Your task to perform on an android device: turn vacation reply on in the gmail app Image 0: 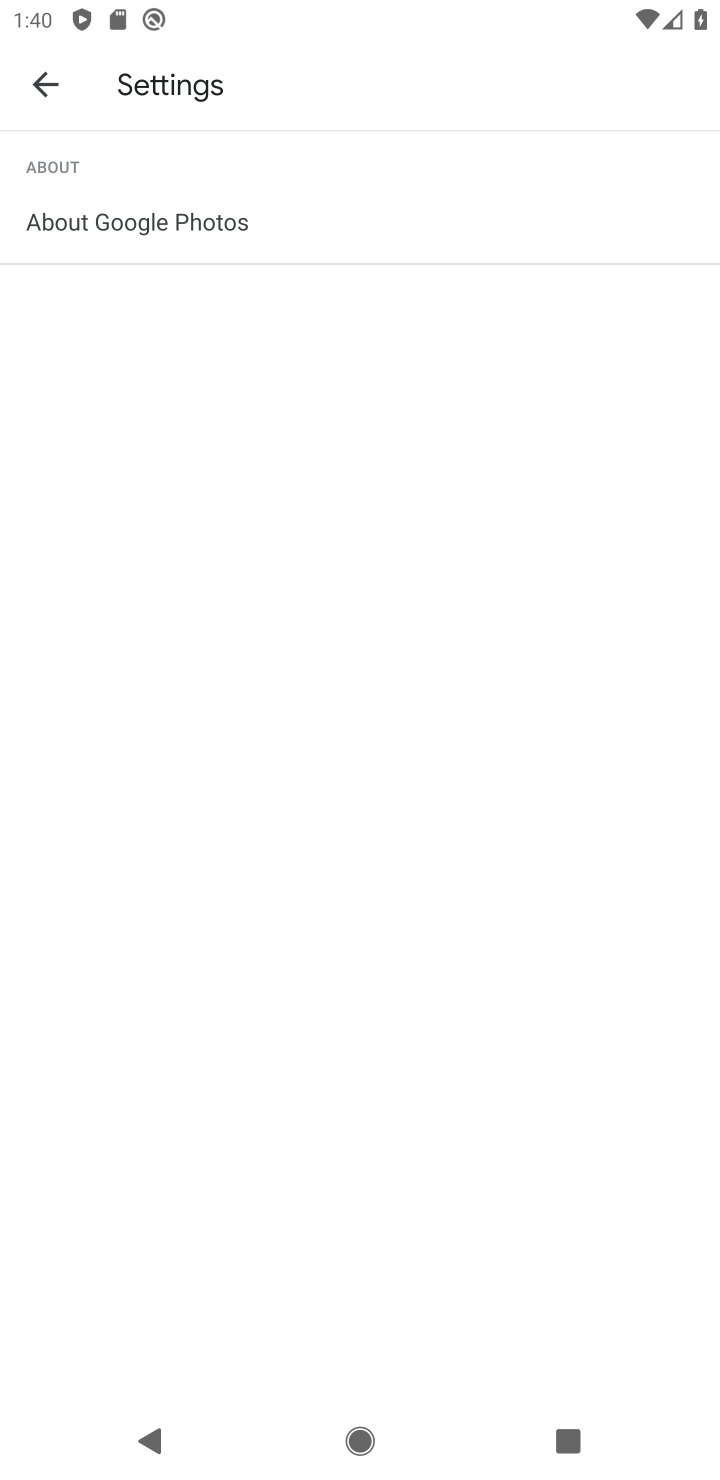
Step 0: press home button
Your task to perform on an android device: turn vacation reply on in the gmail app Image 1: 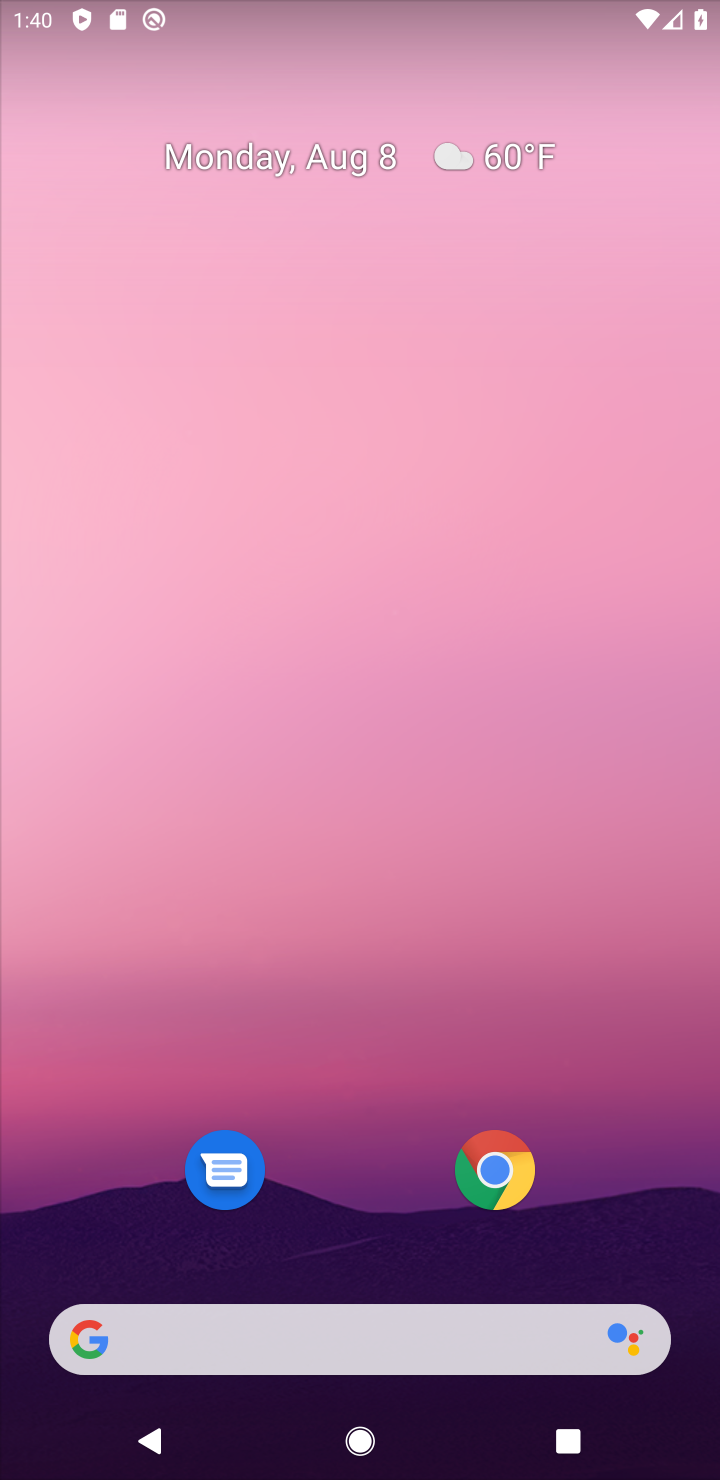
Step 1: drag from (127, 1283) to (353, 689)
Your task to perform on an android device: turn vacation reply on in the gmail app Image 2: 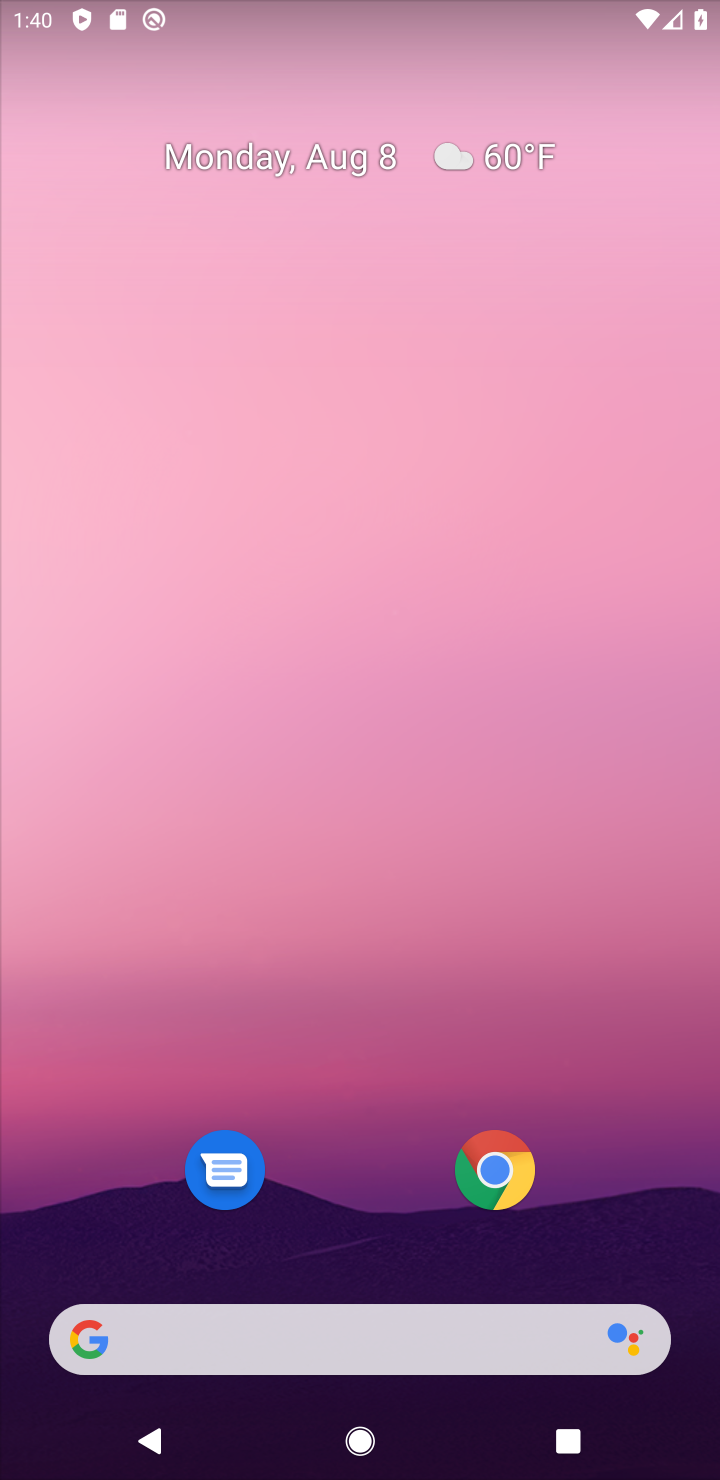
Step 2: drag from (54, 1383) to (395, 437)
Your task to perform on an android device: turn vacation reply on in the gmail app Image 3: 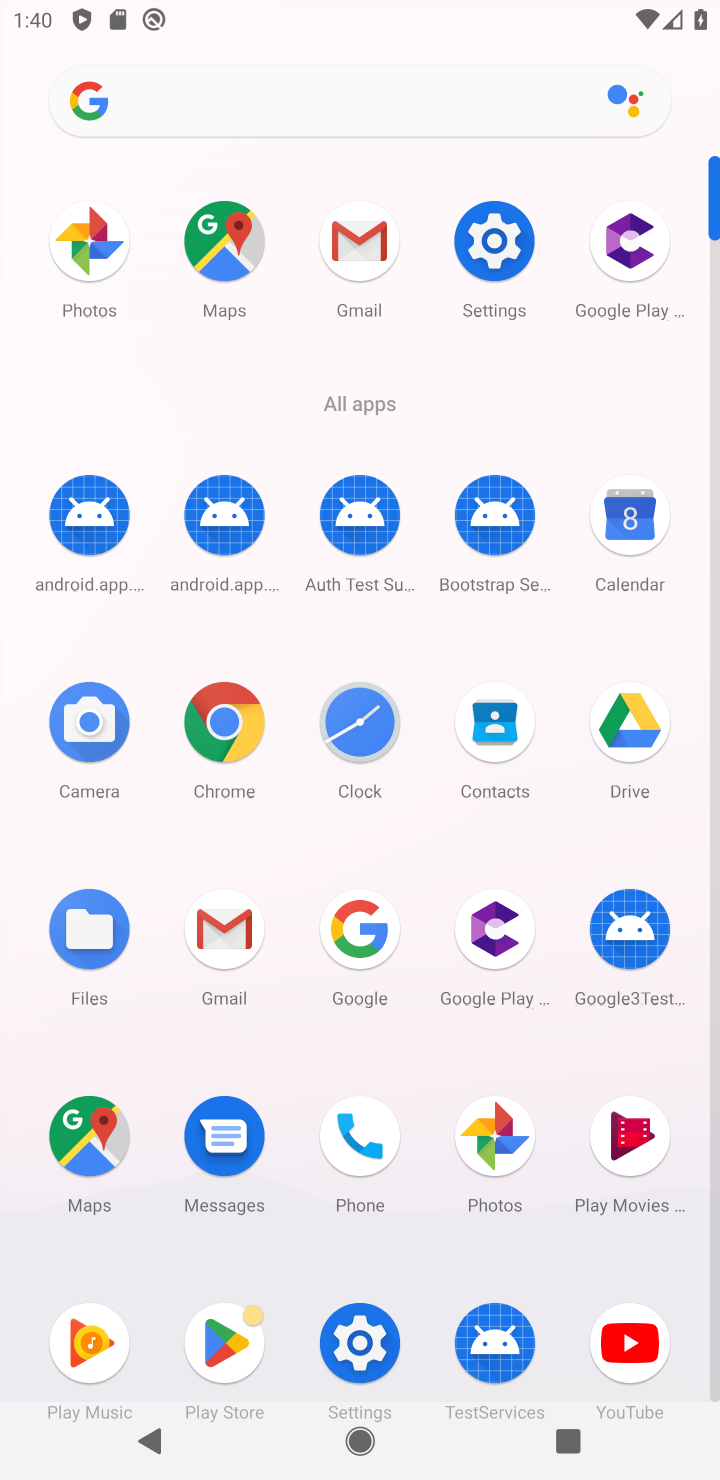
Step 3: click (228, 941)
Your task to perform on an android device: turn vacation reply on in the gmail app Image 4: 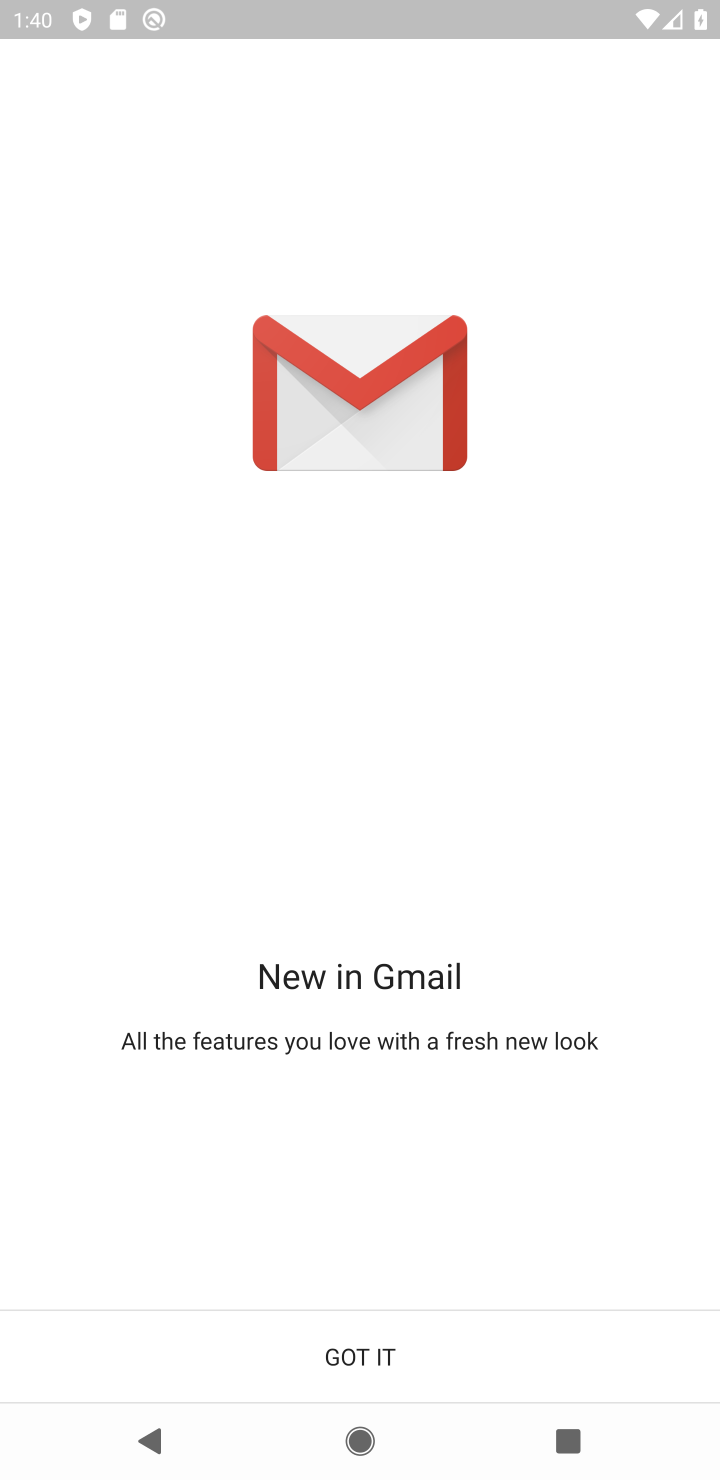
Step 4: click (377, 1351)
Your task to perform on an android device: turn vacation reply on in the gmail app Image 5: 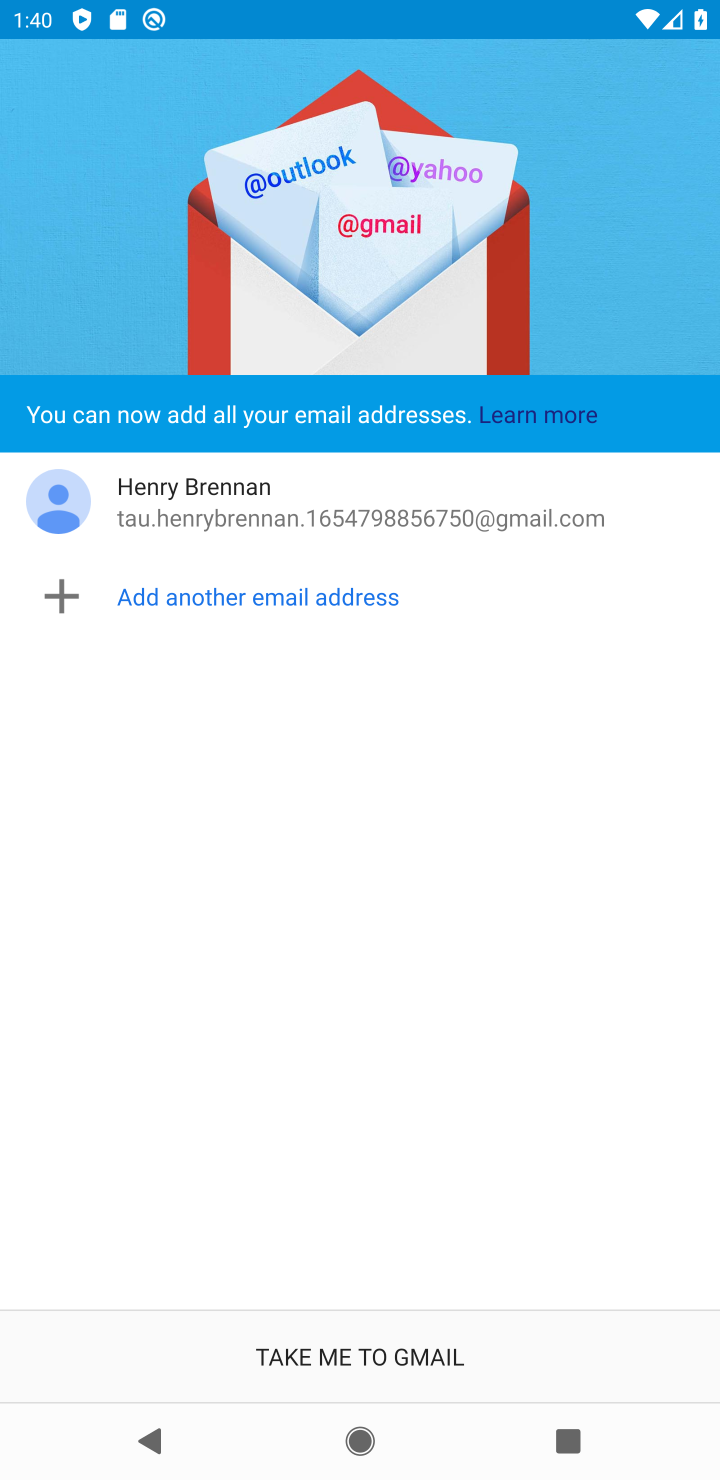
Step 5: click (377, 1351)
Your task to perform on an android device: turn vacation reply on in the gmail app Image 6: 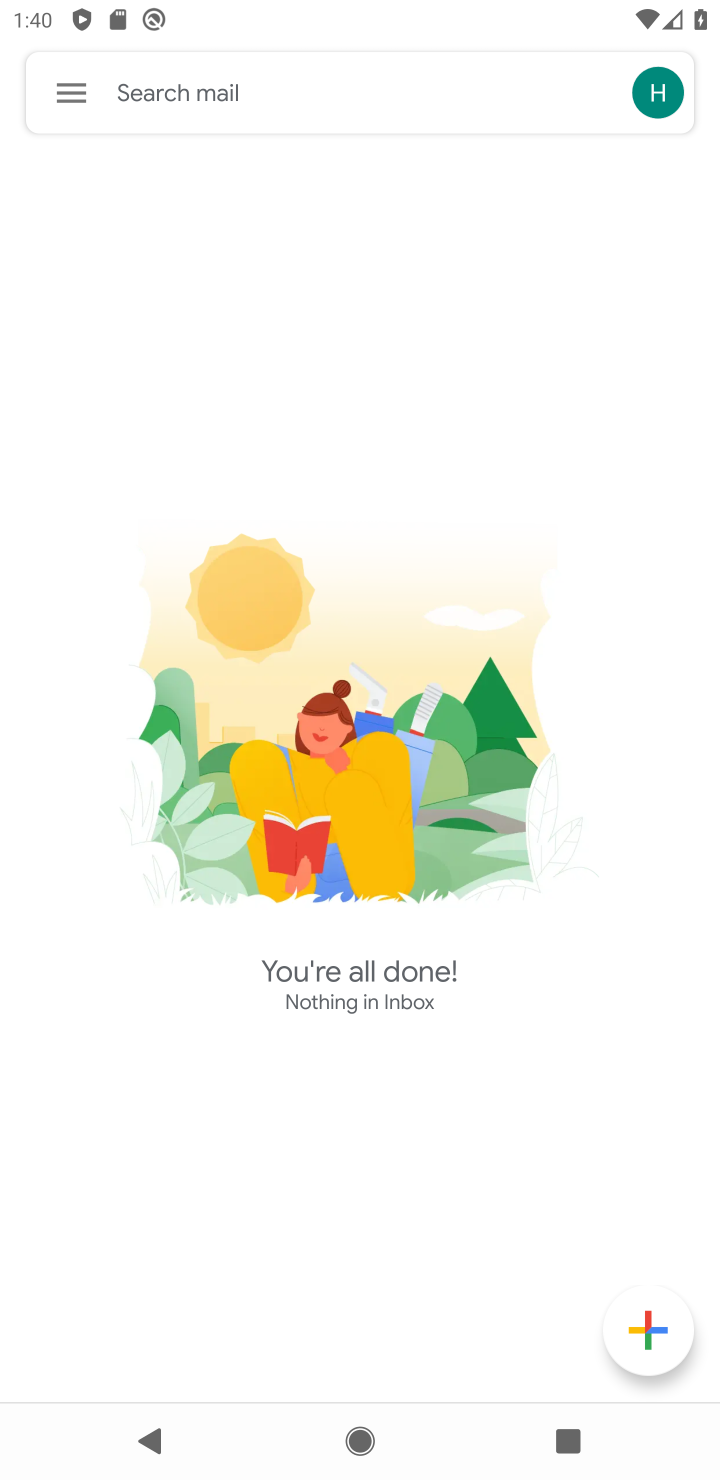
Step 6: click (76, 88)
Your task to perform on an android device: turn vacation reply on in the gmail app Image 7: 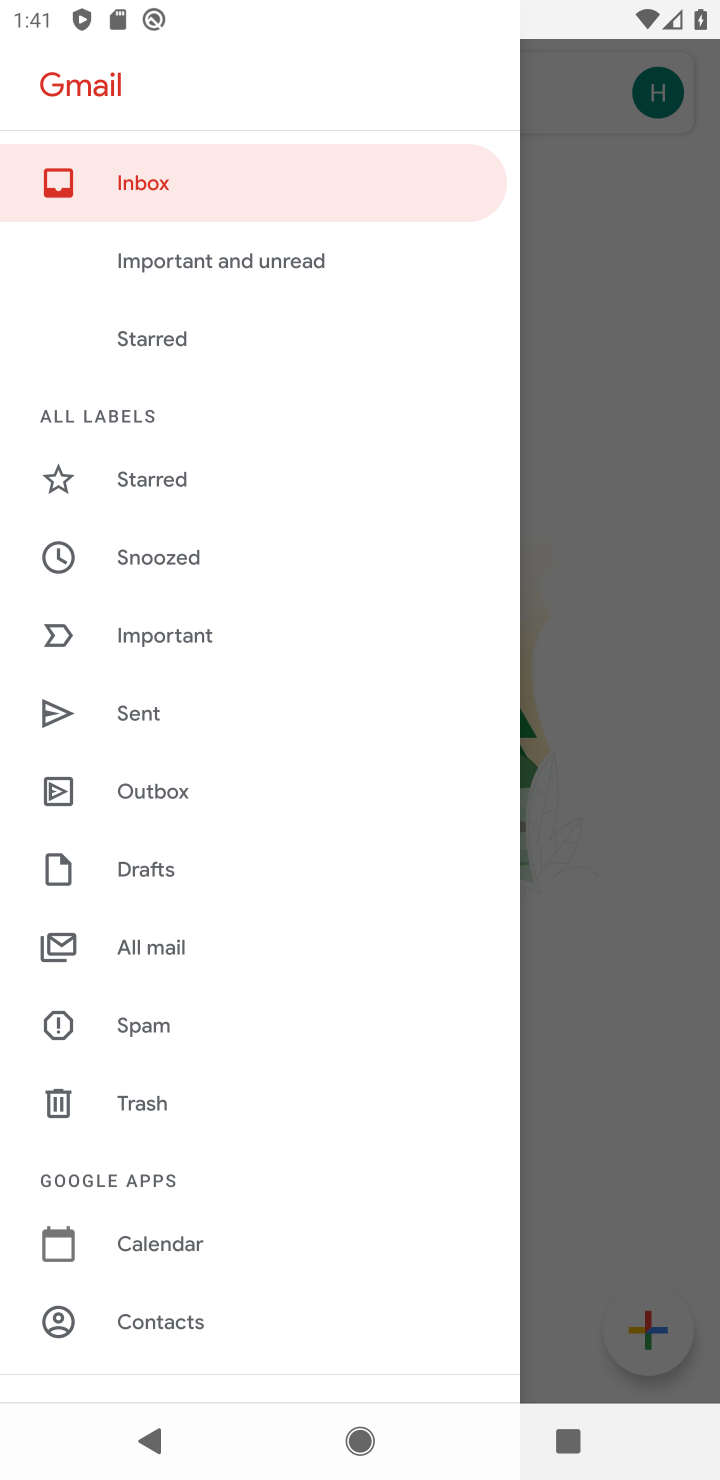
Step 7: click (257, 382)
Your task to perform on an android device: turn vacation reply on in the gmail app Image 8: 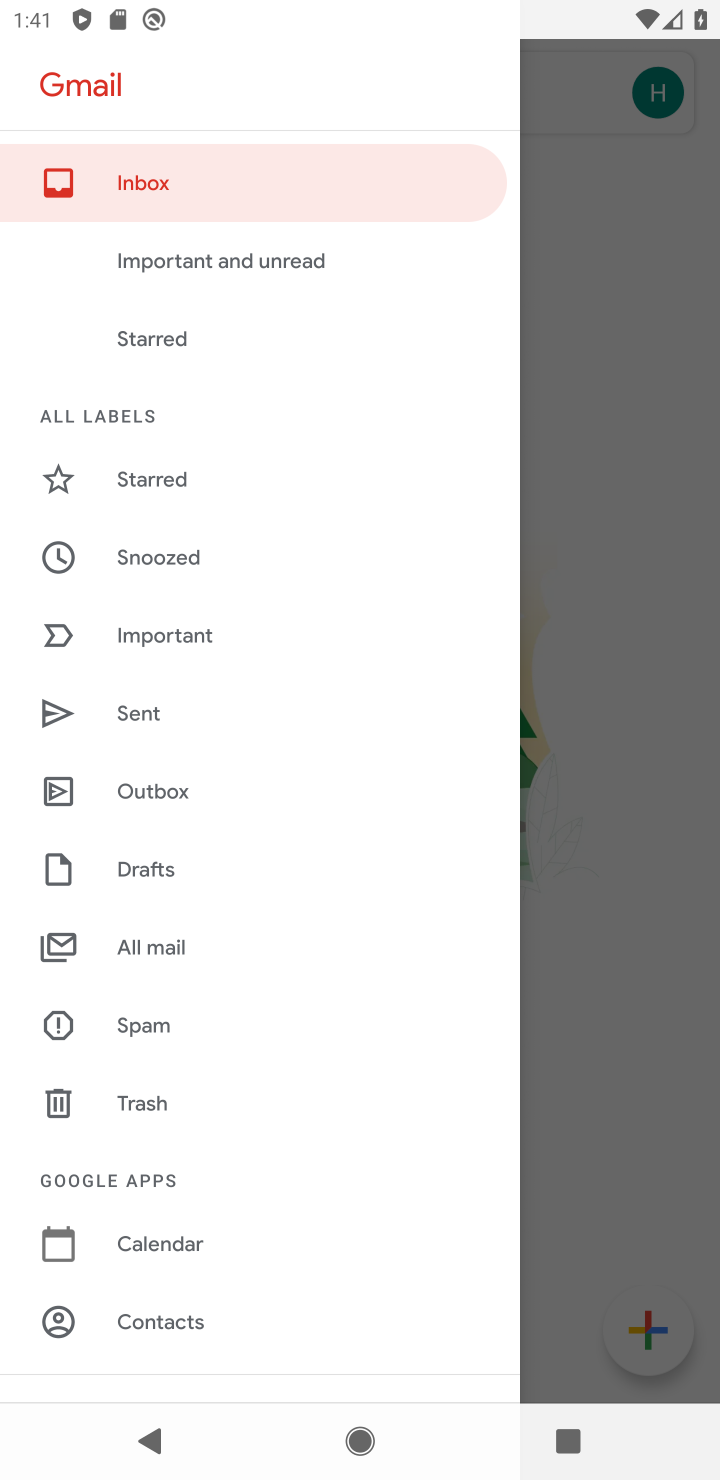
Step 8: drag from (477, 1351) to (551, 836)
Your task to perform on an android device: turn vacation reply on in the gmail app Image 9: 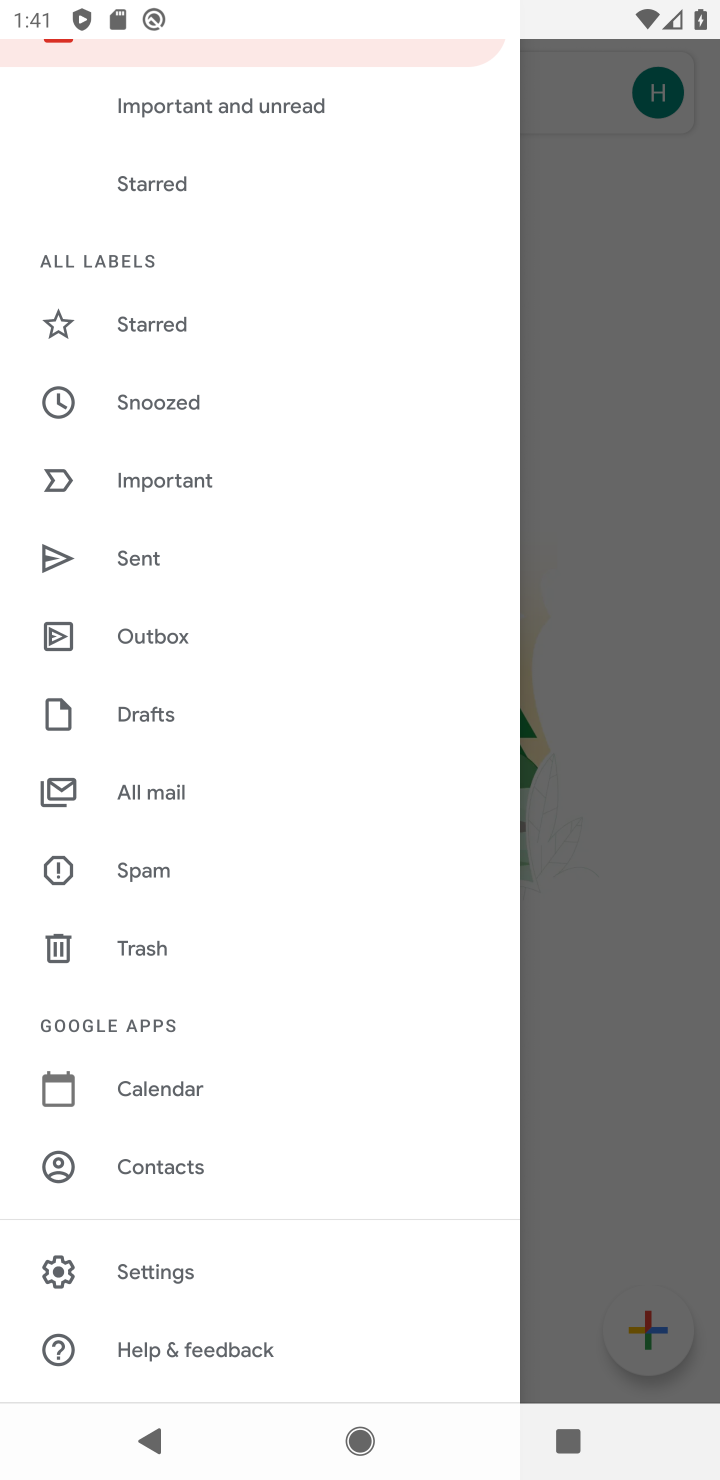
Step 9: click (150, 1250)
Your task to perform on an android device: turn vacation reply on in the gmail app Image 10: 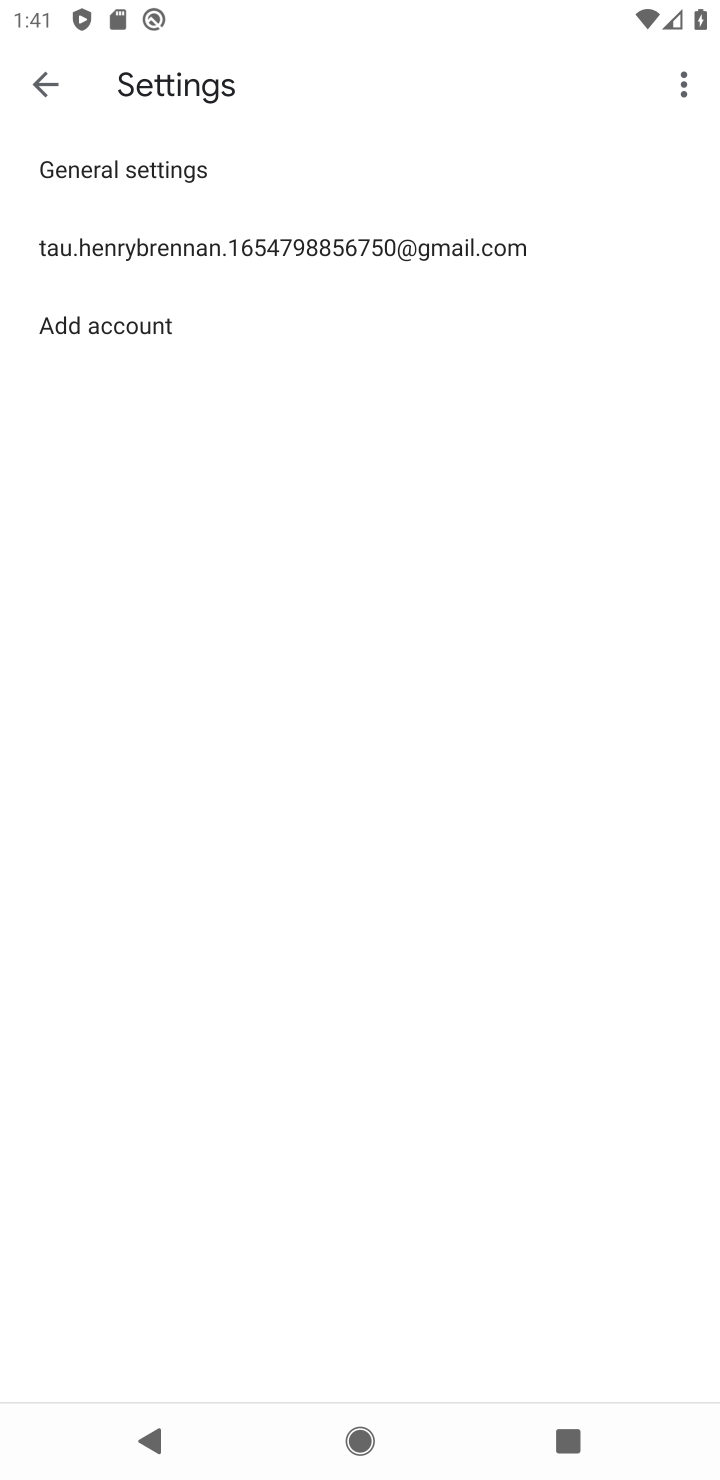
Step 10: click (241, 253)
Your task to perform on an android device: turn vacation reply on in the gmail app Image 11: 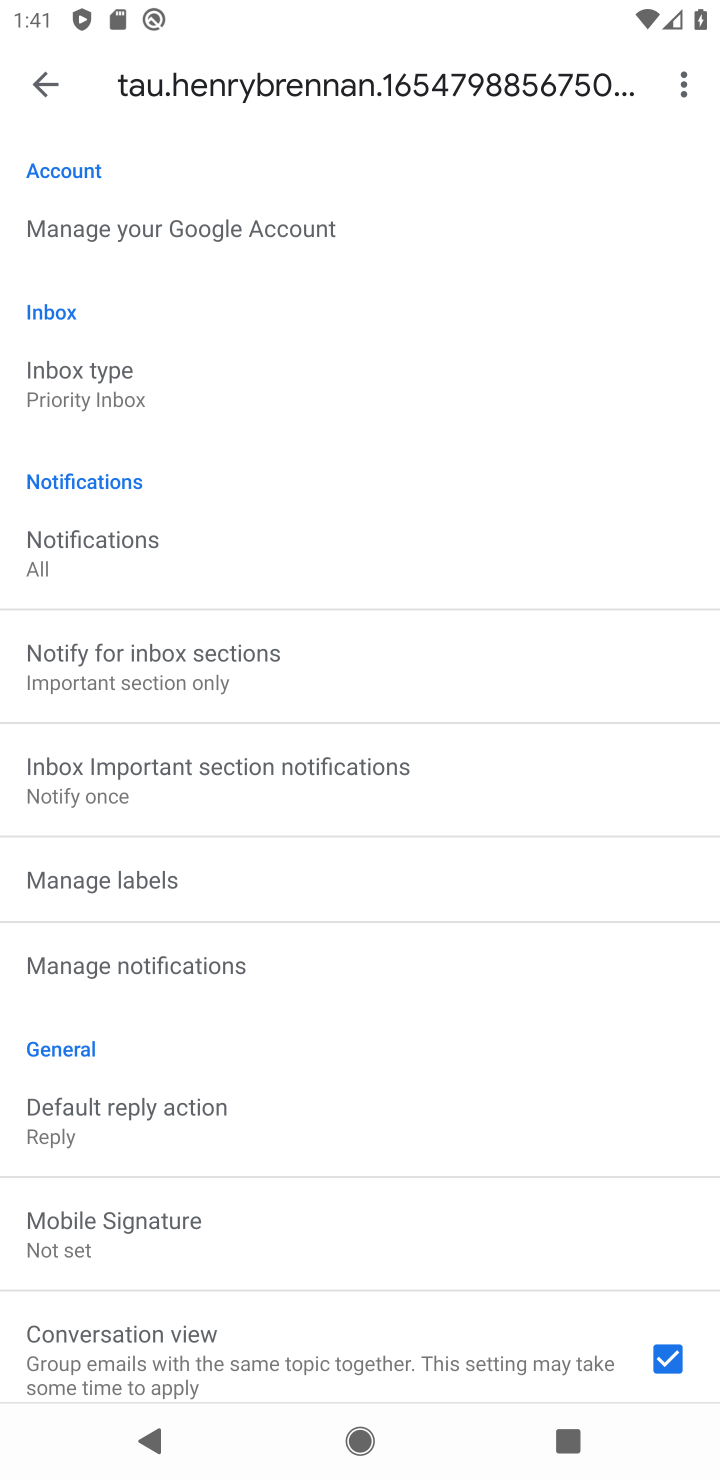
Step 11: drag from (556, 1227) to (588, 671)
Your task to perform on an android device: turn vacation reply on in the gmail app Image 12: 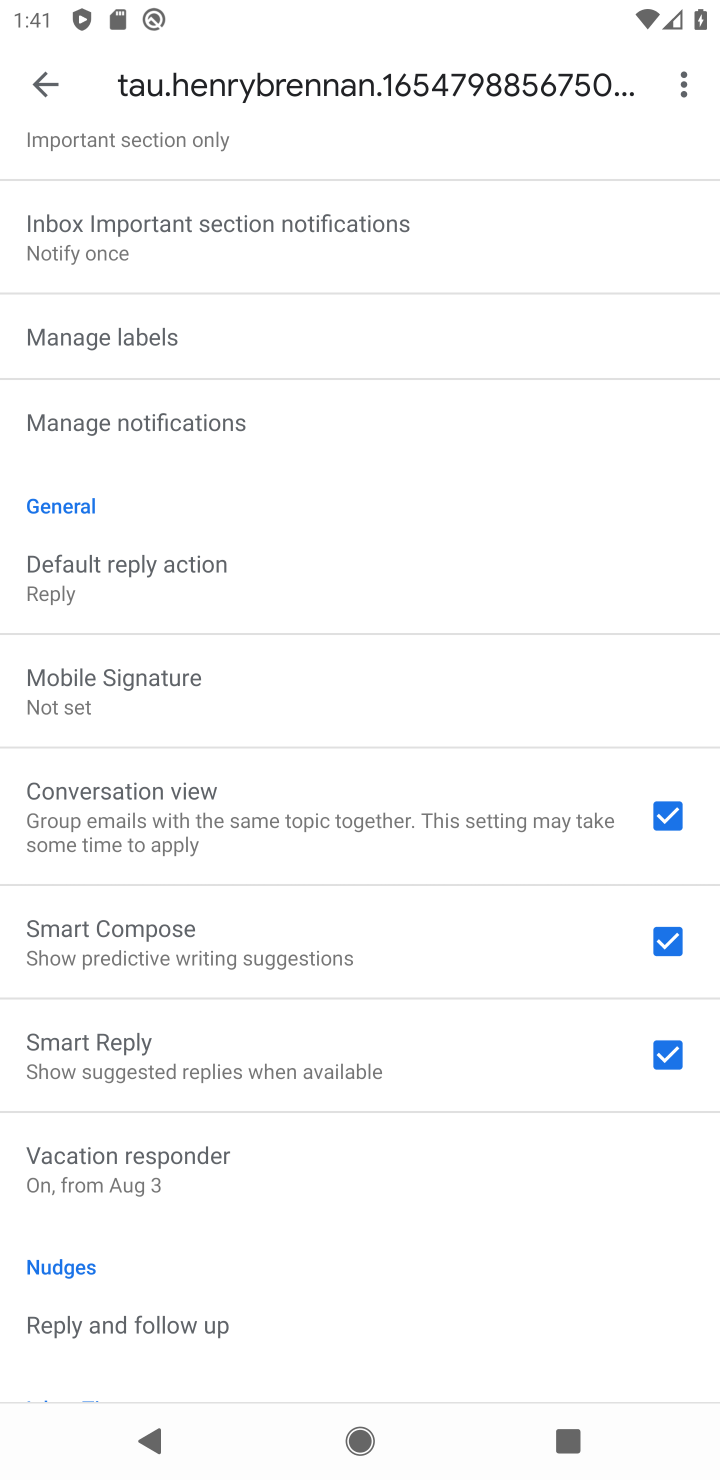
Step 12: drag from (512, 1280) to (513, 874)
Your task to perform on an android device: turn vacation reply on in the gmail app Image 13: 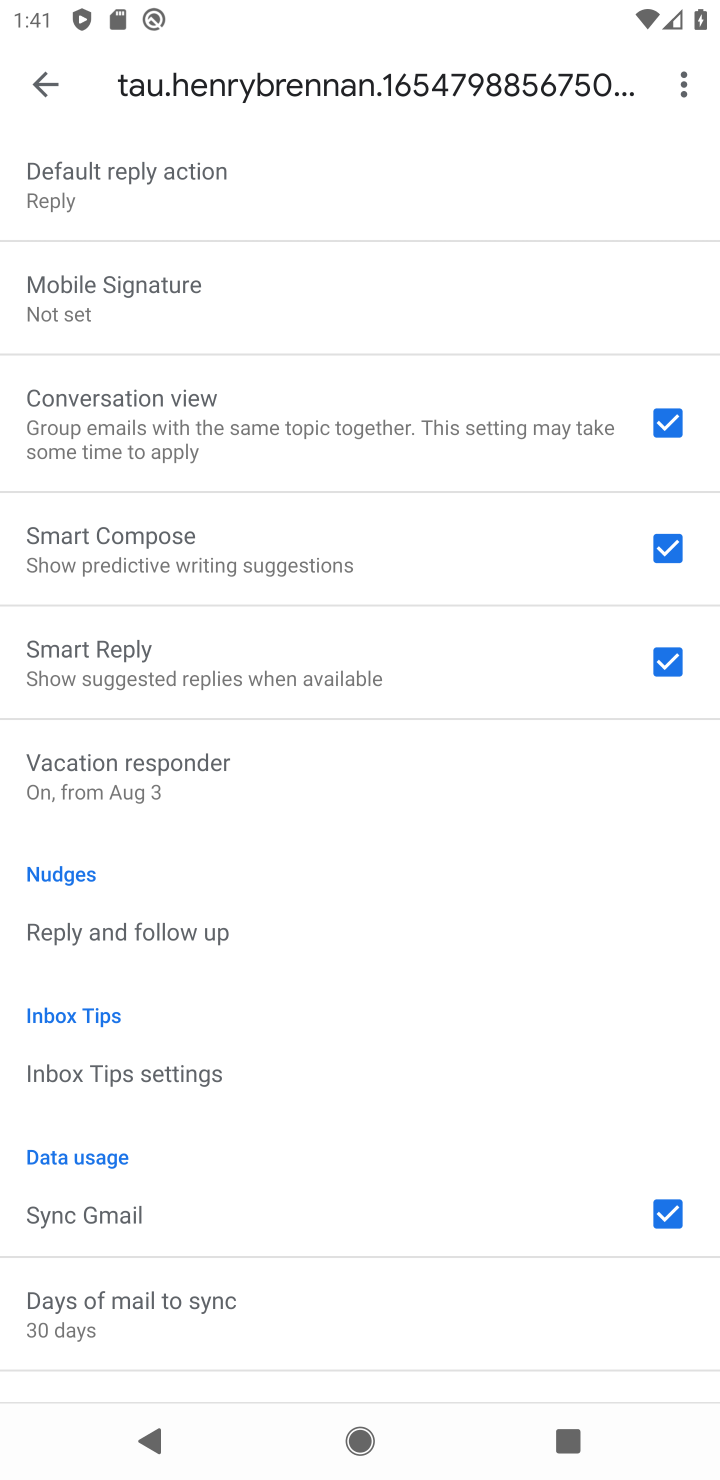
Step 13: drag from (532, 1432) to (484, 907)
Your task to perform on an android device: turn vacation reply on in the gmail app Image 14: 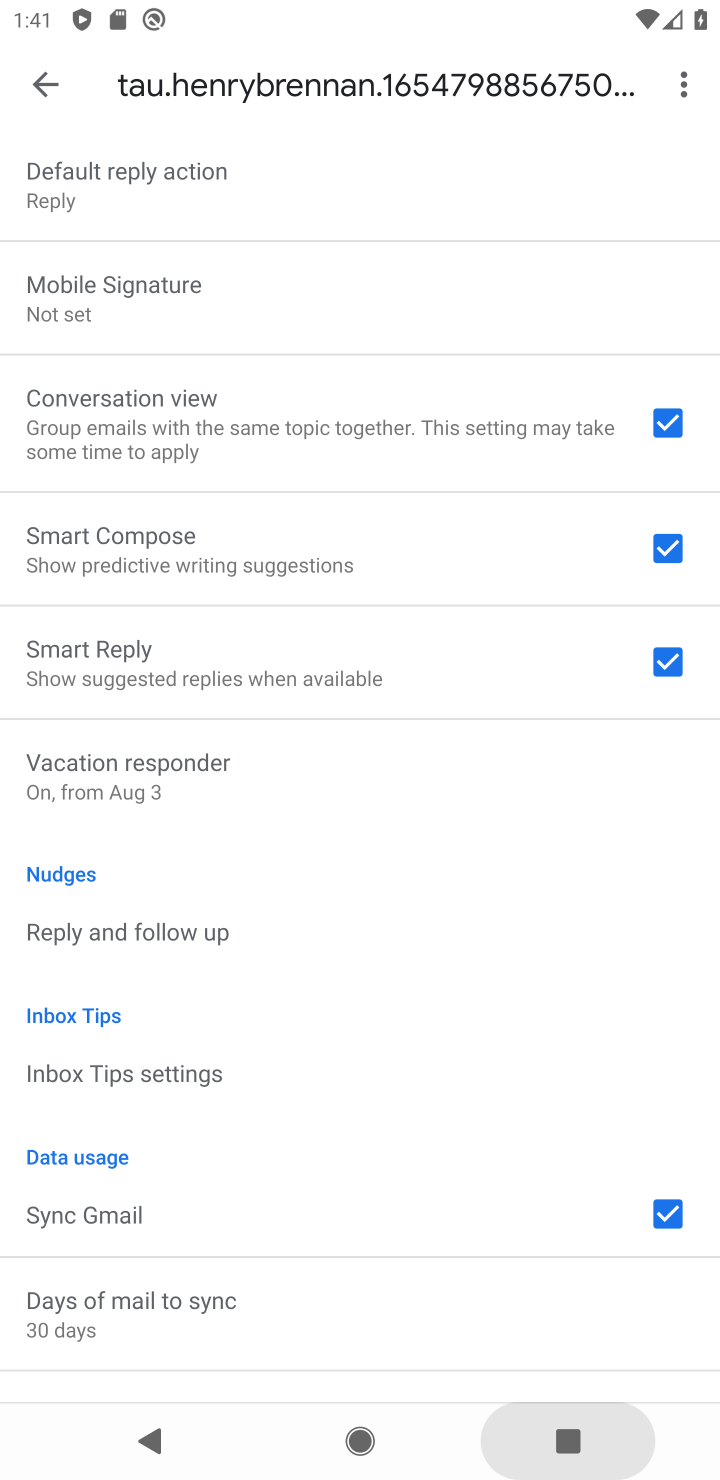
Step 14: click (484, 907)
Your task to perform on an android device: turn vacation reply on in the gmail app Image 15: 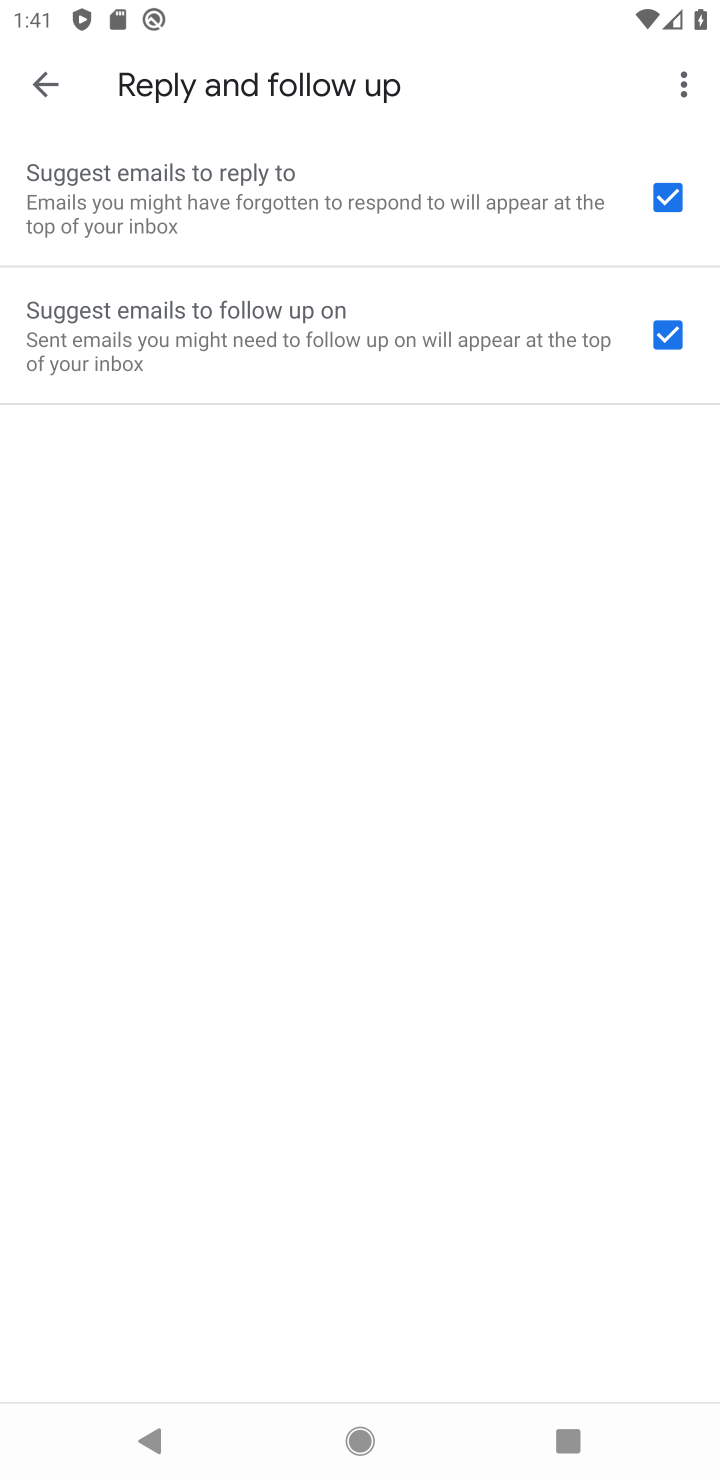
Step 15: task complete